Your task to perform on an android device: turn off notifications in google photos Image 0: 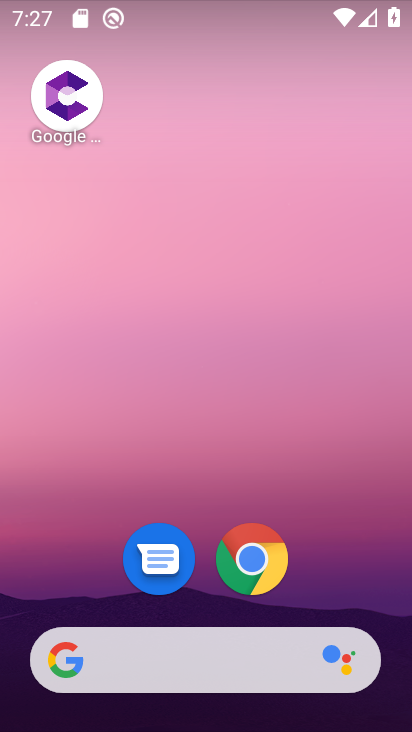
Step 0: drag from (213, 669) to (341, 135)
Your task to perform on an android device: turn off notifications in google photos Image 1: 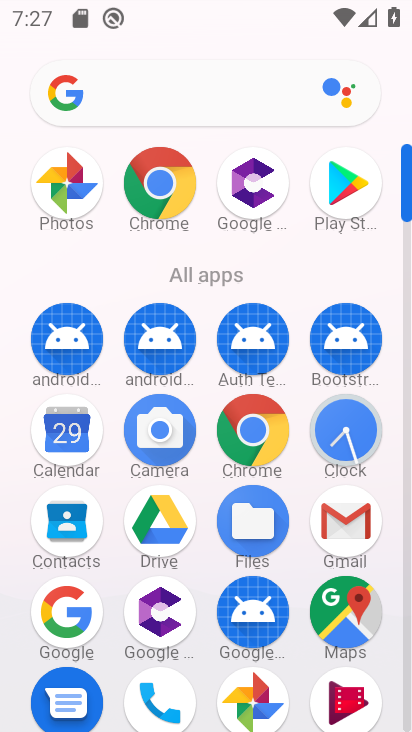
Step 1: drag from (196, 617) to (293, 295)
Your task to perform on an android device: turn off notifications in google photos Image 2: 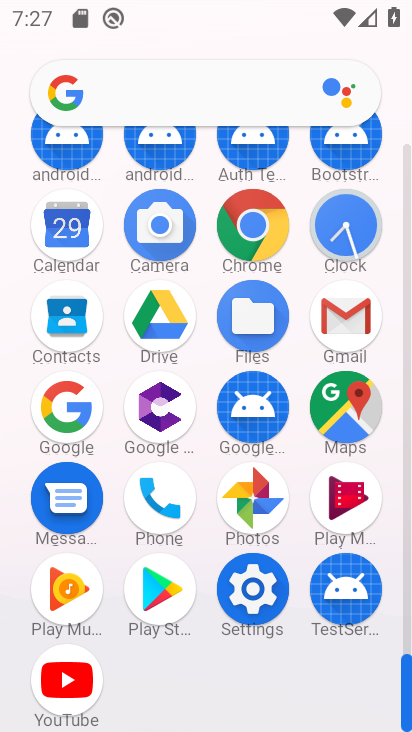
Step 2: click (251, 510)
Your task to perform on an android device: turn off notifications in google photos Image 3: 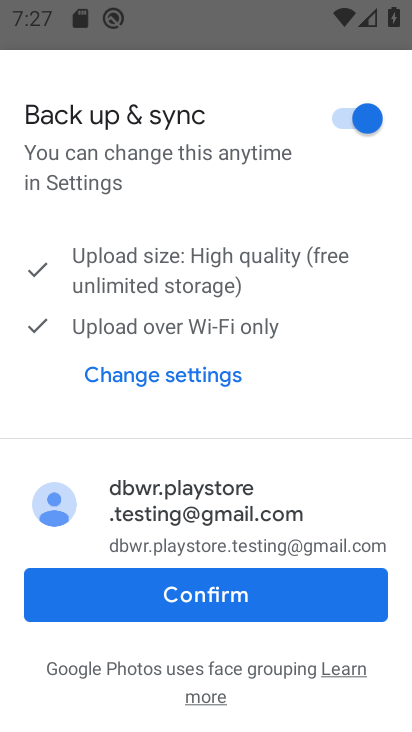
Step 3: click (208, 598)
Your task to perform on an android device: turn off notifications in google photos Image 4: 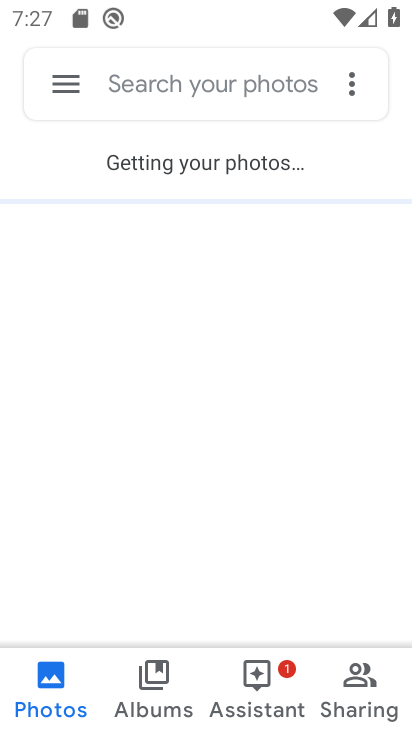
Step 4: click (60, 92)
Your task to perform on an android device: turn off notifications in google photos Image 5: 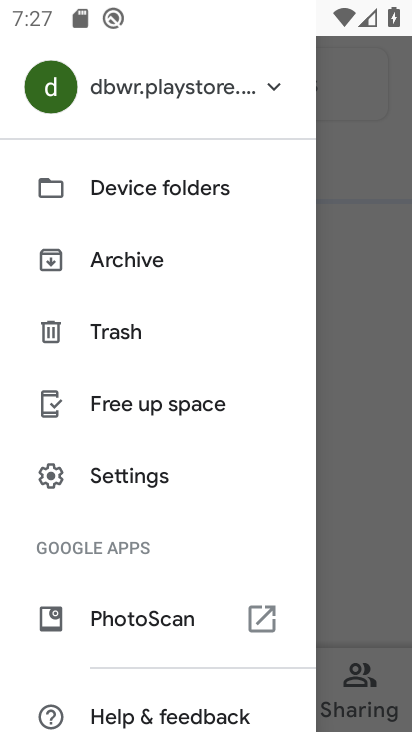
Step 5: click (157, 467)
Your task to perform on an android device: turn off notifications in google photos Image 6: 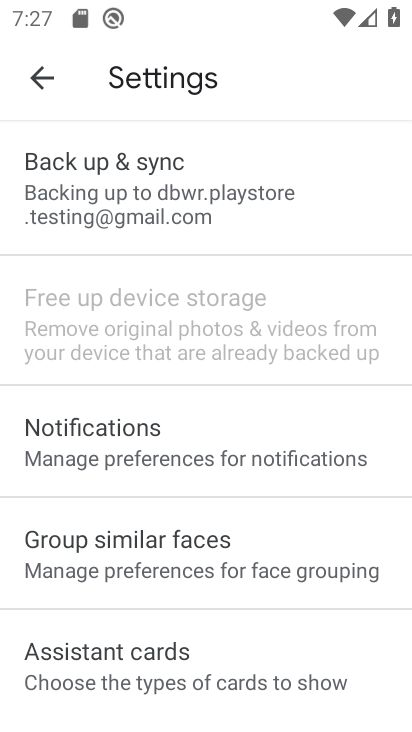
Step 6: click (104, 432)
Your task to perform on an android device: turn off notifications in google photos Image 7: 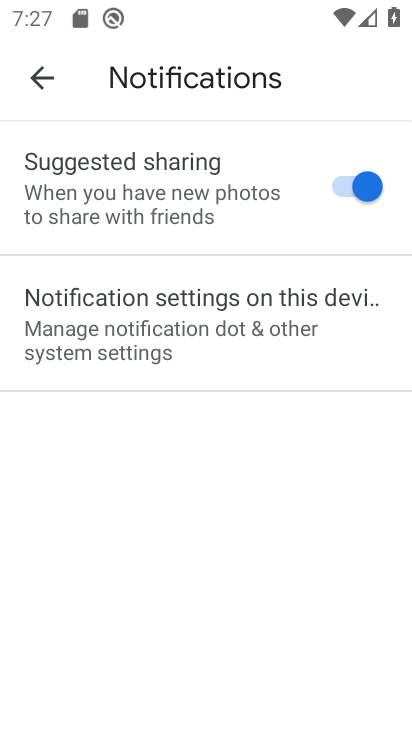
Step 7: click (206, 344)
Your task to perform on an android device: turn off notifications in google photos Image 8: 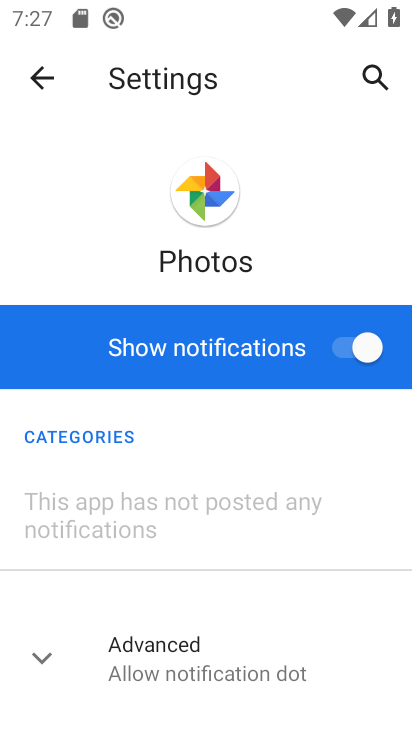
Step 8: click (346, 350)
Your task to perform on an android device: turn off notifications in google photos Image 9: 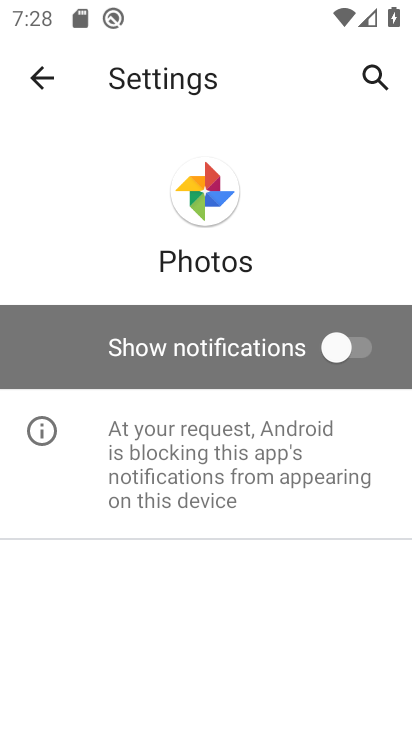
Step 9: task complete